Your task to perform on an android device: What's on my calendar tomorrow? Image 0: 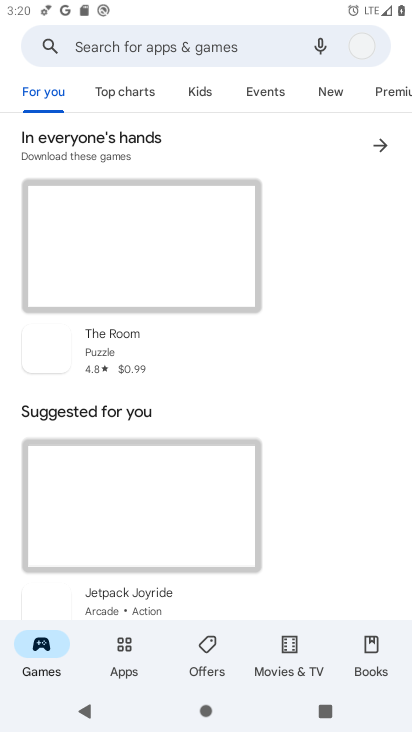
Step 0: press home button
Your task to perform on an android device: What's on my calendar tomorrow? Image 1: 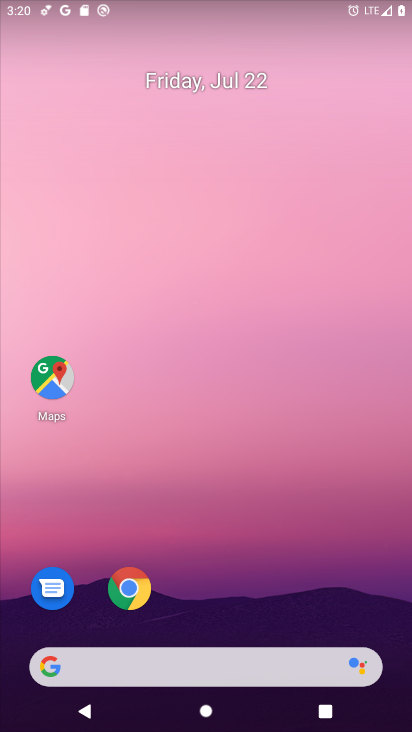
Step 1: drag from (340, 531) to (391, 97)
Your task to perform on an android device: What's on my calendar tomorrow? Image 2: 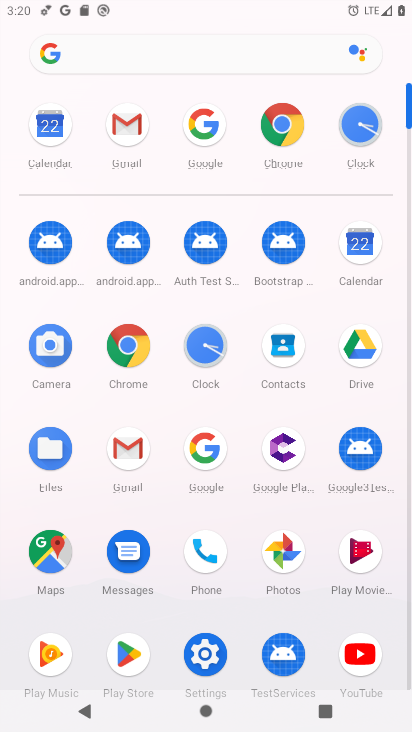
Step 2: click (360, 227)
Your task to perform on an android device: What's on my calendar tomorrow? Image 3: 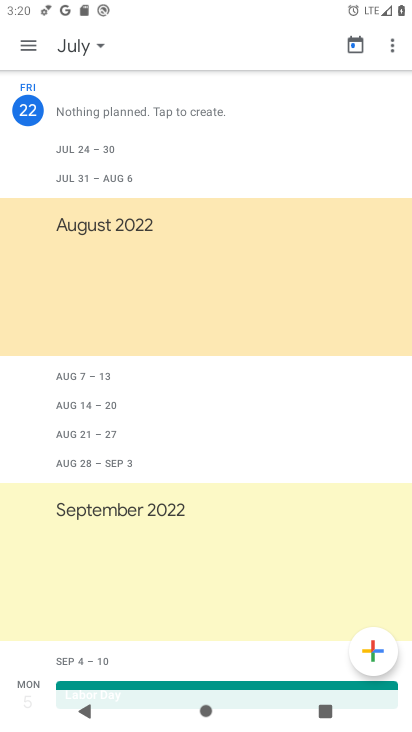
Step 3: click (74, 42)
Your task to perform on an android device: What's on my calendar tomorrow? Image 4: 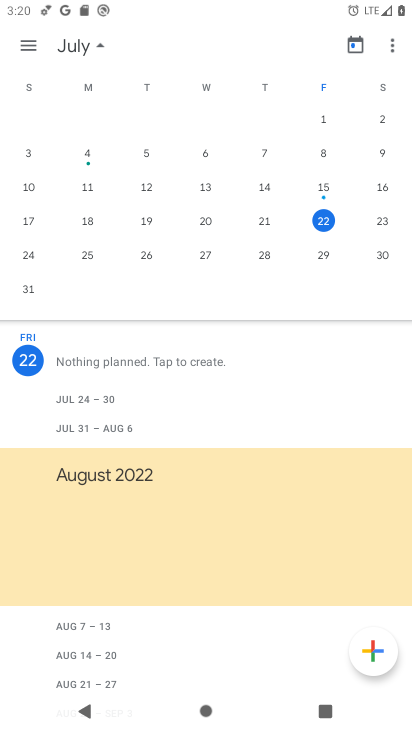
Step 4: click (377, 217)
Your task to perform on an android device: What's on my calendar tomorrow? Image 5: 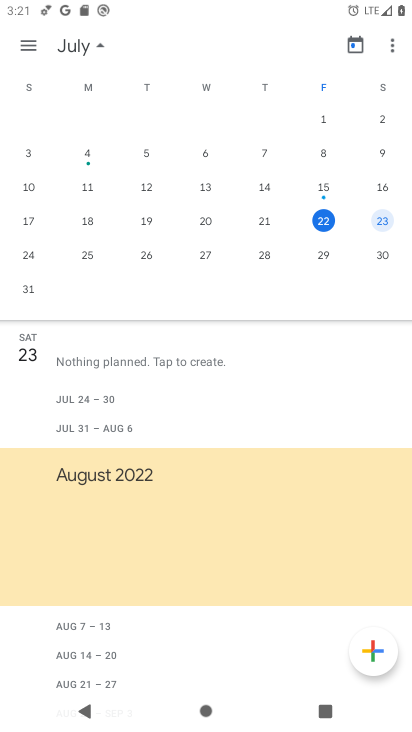
Step 5: task complete